Your task to perform on an android device: Add "macbook air" to the cart on walmart.com Image 0: 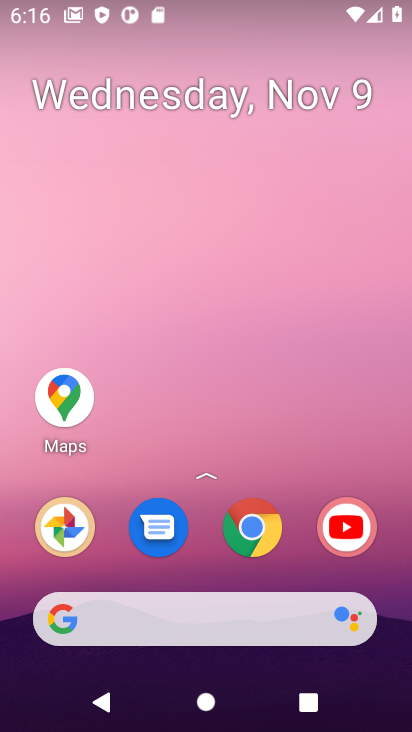
Step 0: click (267, 527)
Your task to perform on an android device: Add "macbook air" to the cart on walmart.com Image 1: 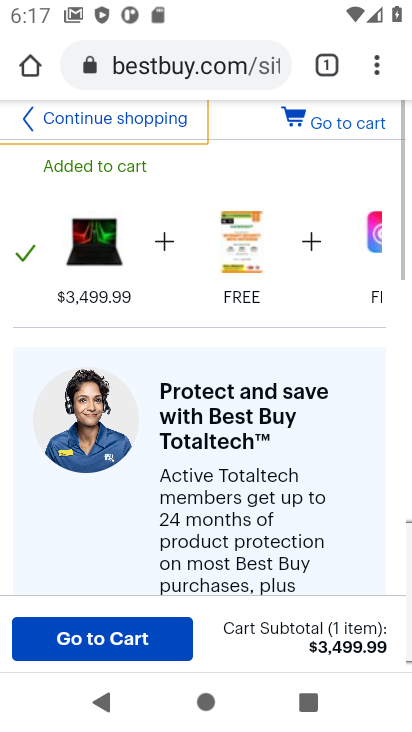
Step 1: click (209, 68)
Your task to perform on an android device: Add "macbook air" to the cart on walmart.com Image 2: 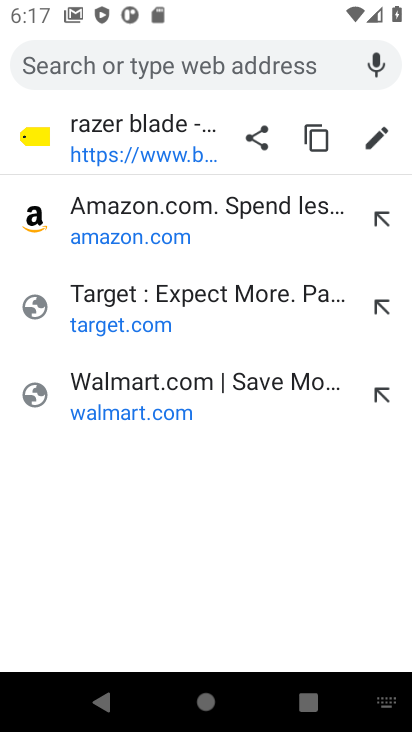
Step 2: click (73, 395)
Your task to perform on an android device: Add "macbook air" to the cart on walmart.com Image 3: 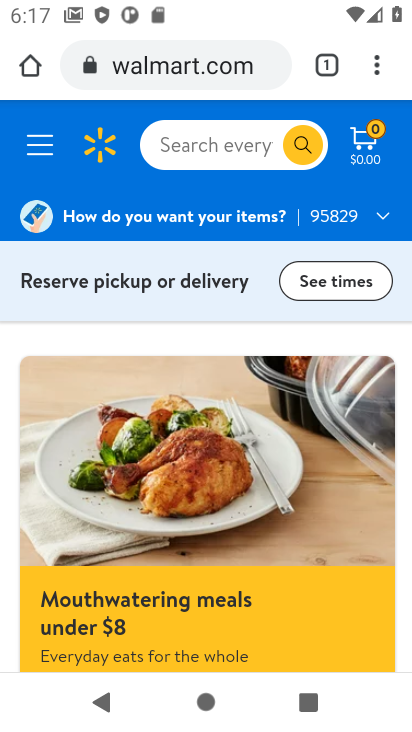
Step 3: click (236, 148)
Your task to perform on an android device: Add "macbook air" to the cart on walmart.com Image 4: 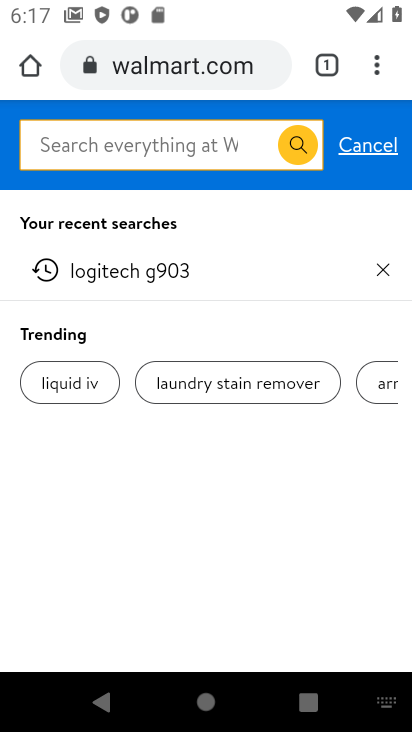
Step 4: type "macbook air"
Your task to perform on an android device: Add "macbook air" to the cart on walmart.com Image 5: 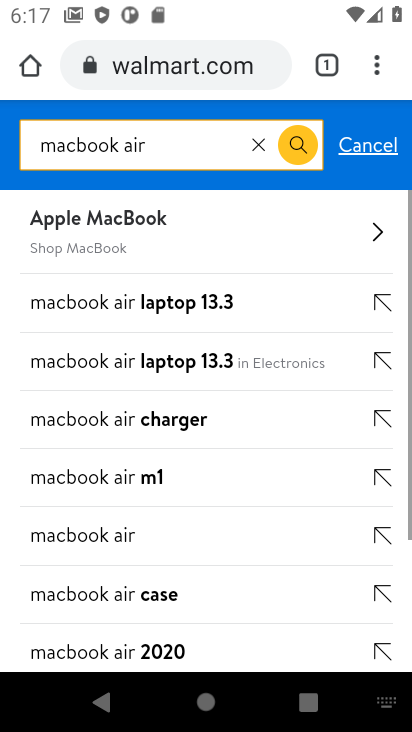
Step 5: click (70, 537)
Your task to perform on an android device: Add "macbook air" to the cart on walmart.com Image 6: 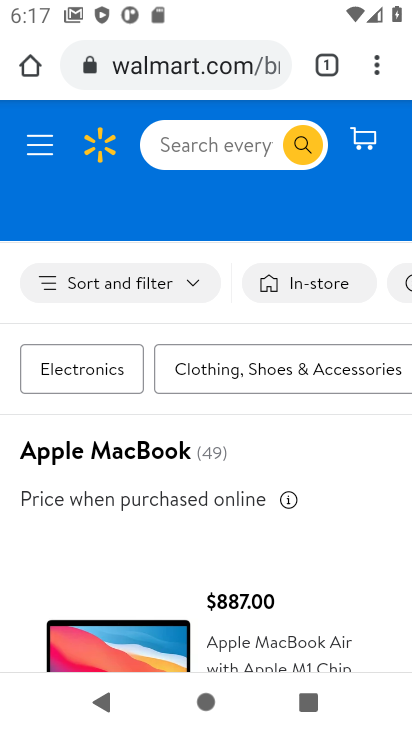
Step 6: drag from (201, 590) to (216, 439)
Your task to perform on an android device: Add "macbook air" to the cart on walmart.com Image 7: 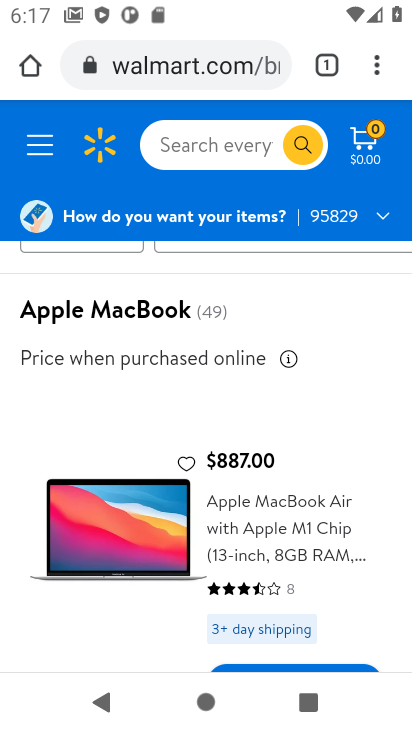
Step 7: drag from (191, 559) to (220, 388)
Your task to perform on an android device: Add "macbook air" to the cart on walmart.com Image 8: 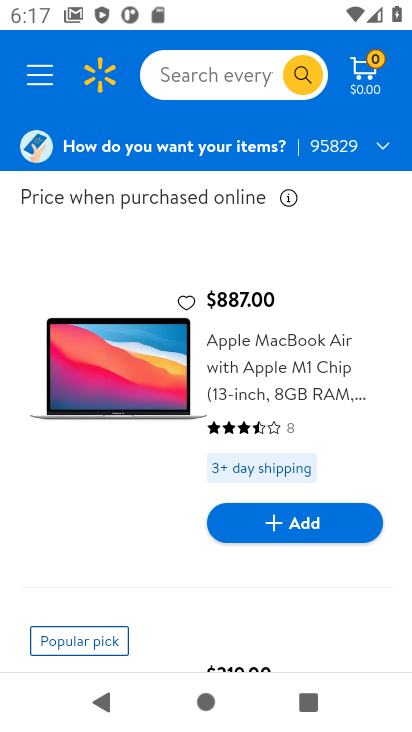
Step 8: click (286, 534)
Your task to perform on an android device: Add "macbook air" to the cart on walmart.com Image 9: 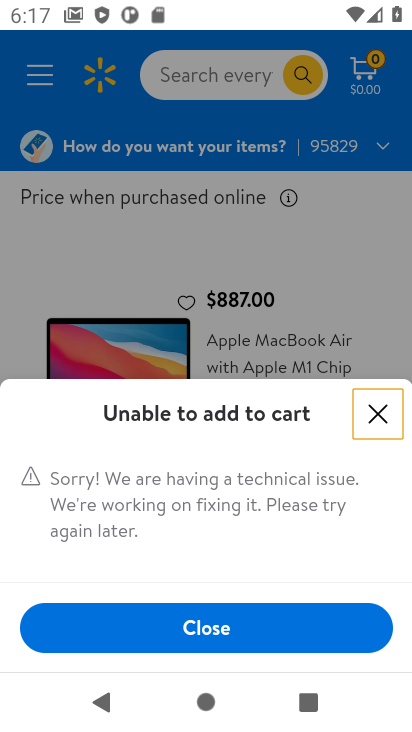
Step 9: click (385, 414)
Your task to perform on an android device: Add "macbook air" to the cart on walmart.com Image 10: 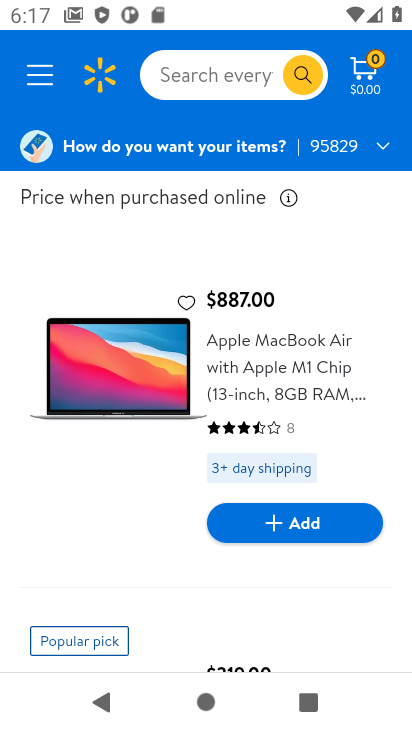
Step 10: drag from (130, 502) to (127, 303)
Your task to perform on an android device: Add "macbook air" to the cart on walmart.com Image 11: 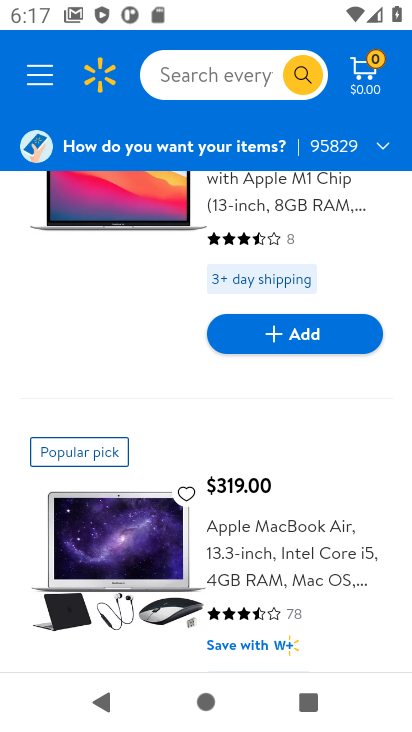
Step 11: drag from (101, 509) to (119, 248)
Your task to perform on an android device: Add "macbook air" to the cart on walmart.com Image 12: 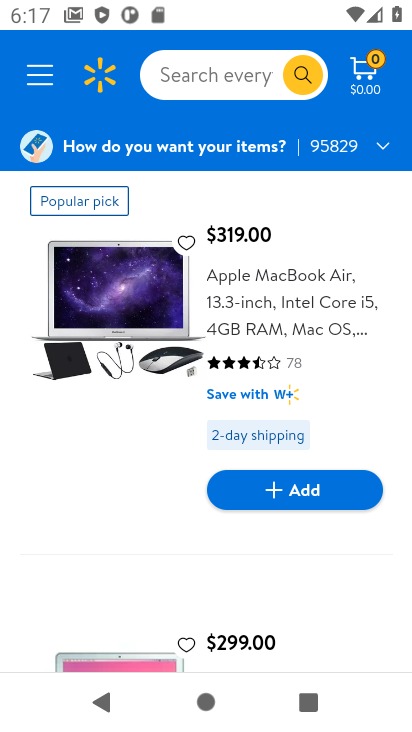
Step 12: click (298, 499)
Your task to perform on an android device: Add "macbook air" to the cart on walmart.com Image 13: 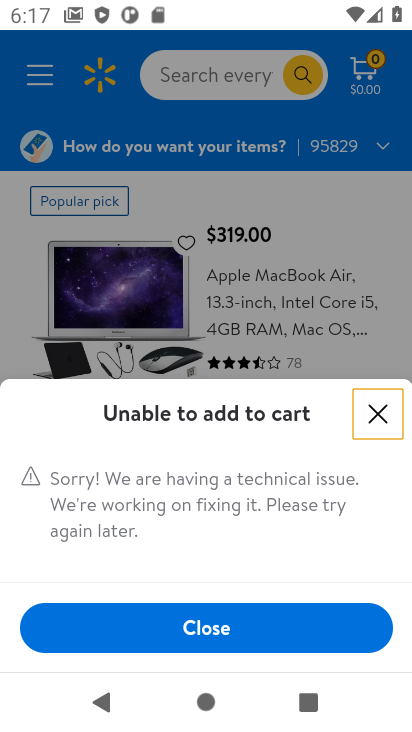
Step 13: task complete